Your task to perform on an android device: create a new album in the google photos Image 0: 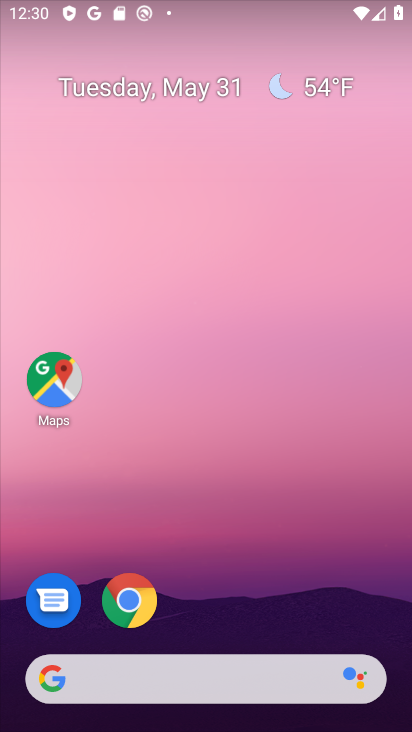
Step 0: drag from (233, 634) to (177, 69)
Your task to perform on an android device: create a new album in the google photos Image 1: 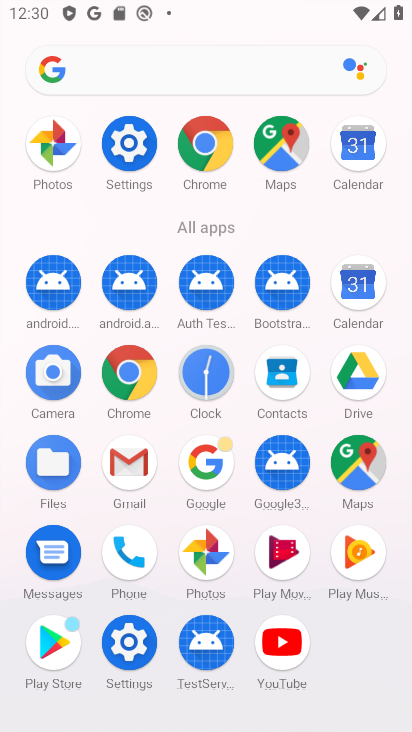
Step 1: click (198, 553)
Your task to perform on an android device: create a new album in the google photos Image 2: 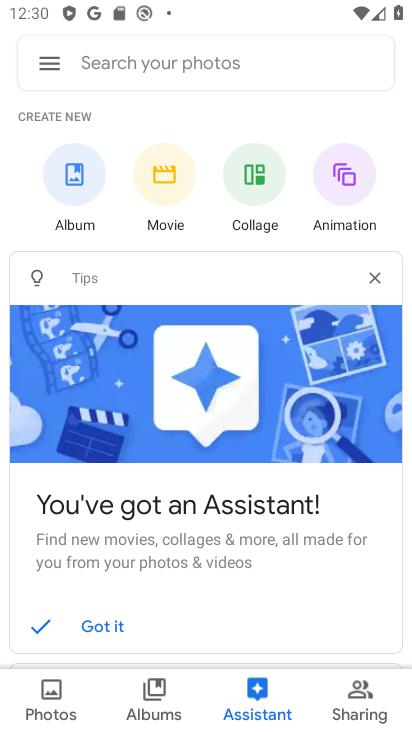
Step 2: click (39, 698)
Your task to perform on an android device: create a new album in the google photos Image 3: 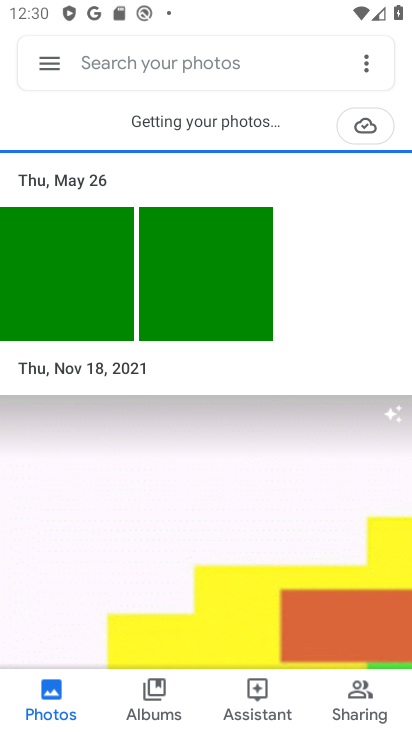
Step 3: click (65, 268)
Your task to perform on an android device: create a new album in the google photos Image 4: 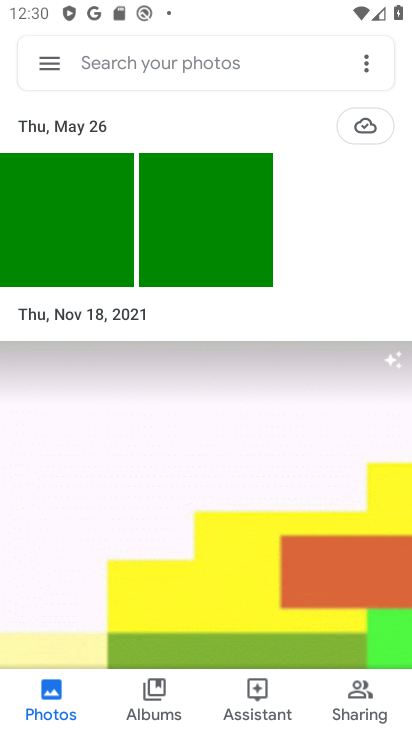
Step 4: click (108, 240)
Your task to perform on an android device: create a new album in the google photos Image 5: 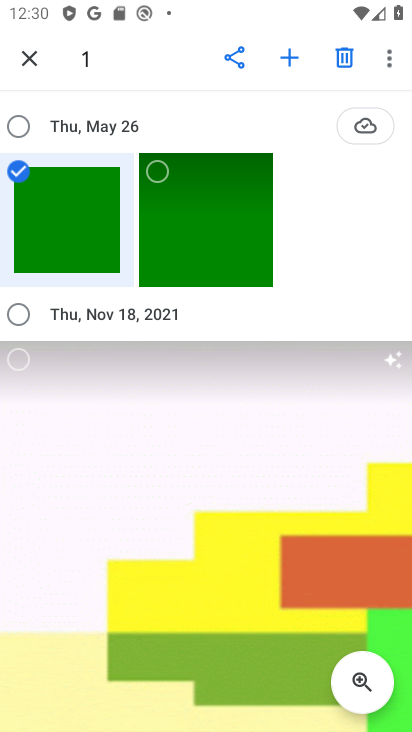
Step 5: click (183, 241)
Your task to perform on an android device: create a new album in the google photos Image 6: 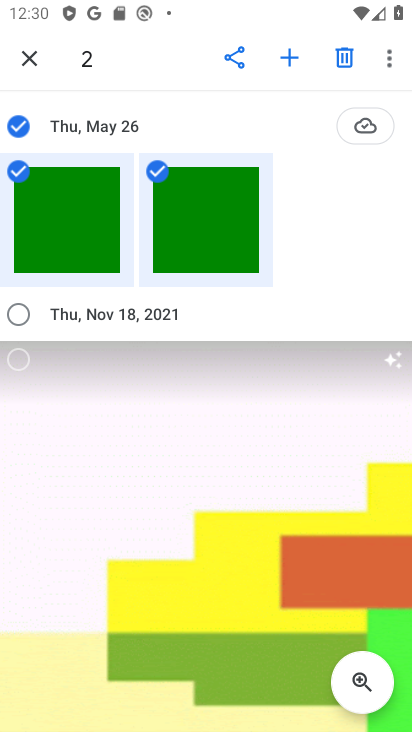
Step 6: click (304, 47)
Your task to perform on an android device: create a new album in the google photos Image 7: 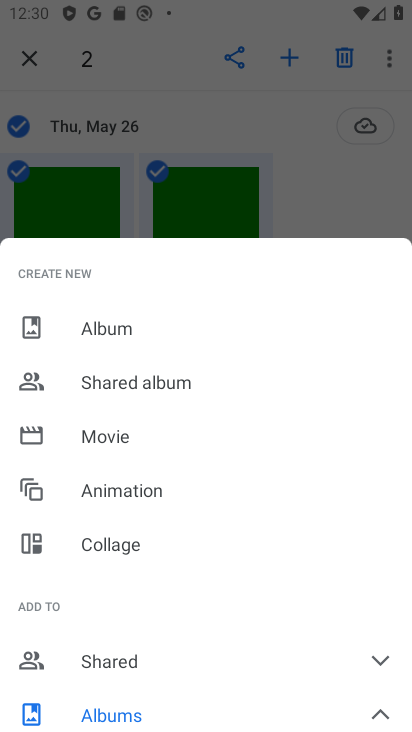
Step 7: click (133, 308)
Your task to perform on an android device: create a new album in the google photos Image 8: 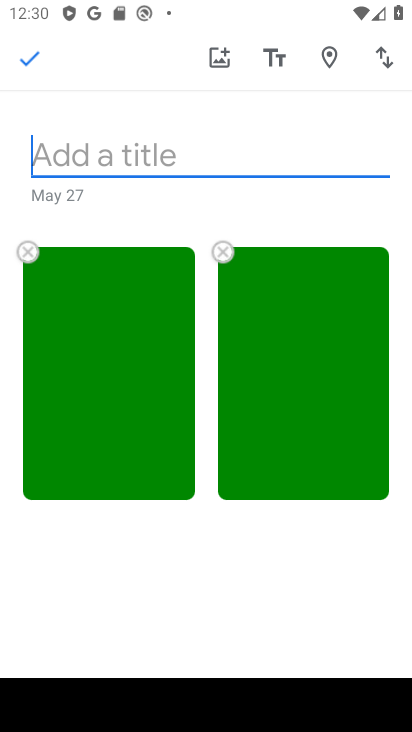
Step 8: type "vb"
Your task to perform on an android device: create a new album in the google photos Image 9: 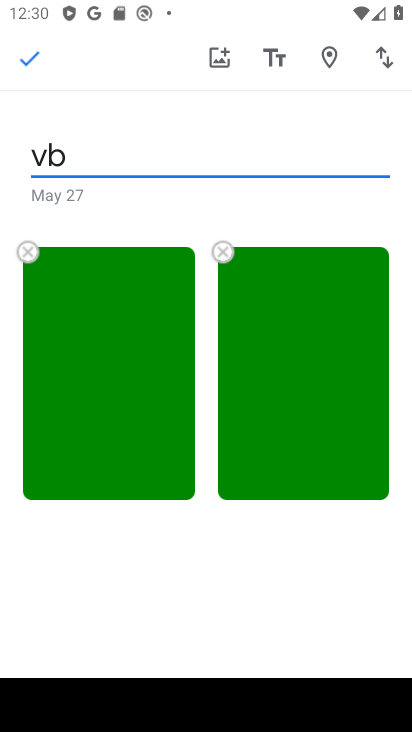
Step 9: click (21, 47)
Your task to perform on an android device: create a new album in the google photos Image 10: 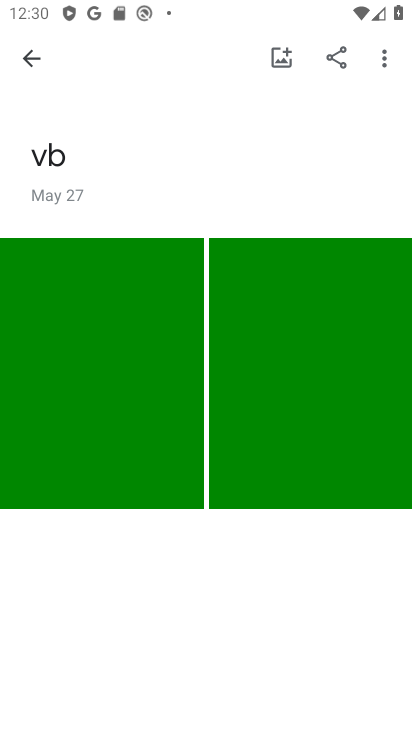
Step 10: task complete